Your task to perform on an android device: Open Google Image 0: 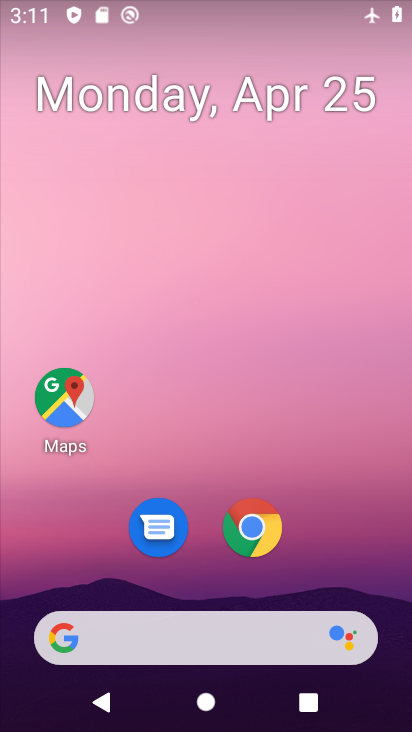
Step 0: drag from (172, 629) to (320, 66)
Your task to perform on an android device: Open Google Image 1: 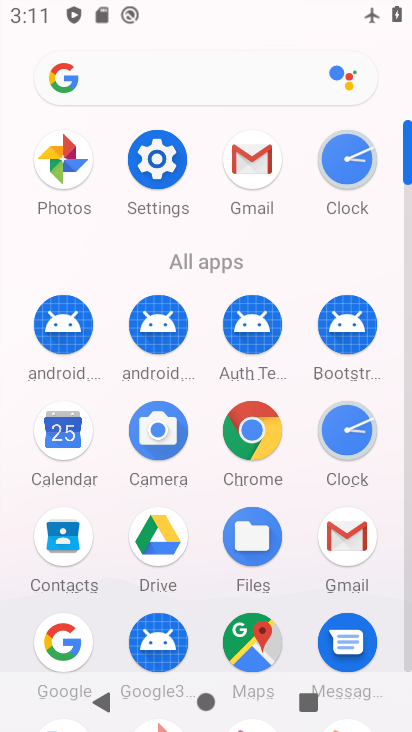
Step 1: click (64, 653)
Your task to perform on an android device: Open Google Image 2: 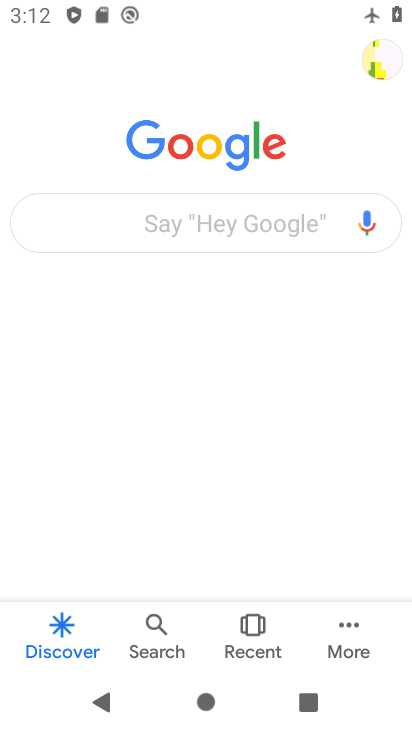
Step 2: task complete